Your task to perform on an android device: change the upload size in google photos Image 0: 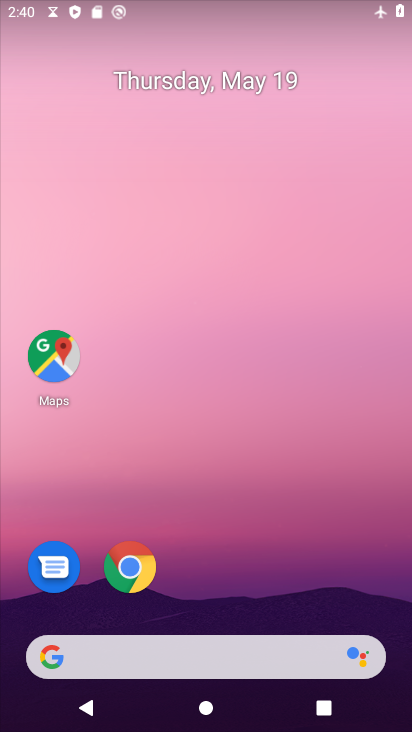
Step 0: drag from (233, 624) to (255, 23)
Your task to perform on an android device: change the upload size in google photos Image 1: 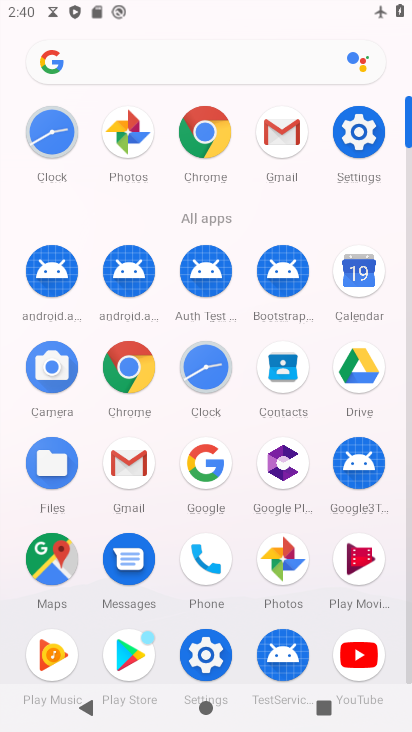
Step 1: click (285, 559)
Your task to perform on an android device: change the upload size in google photos Image 2: 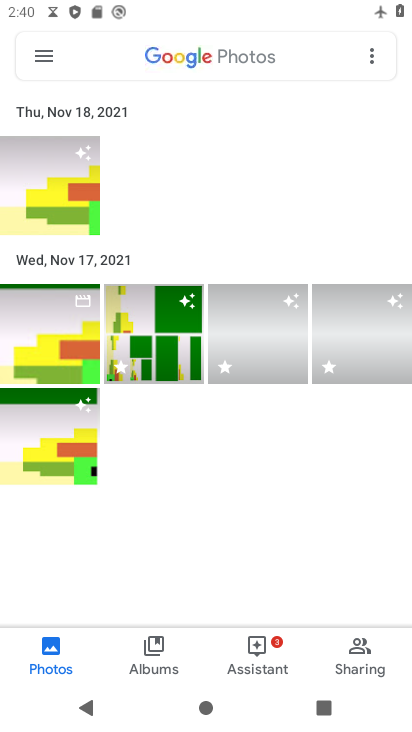
Step 2: click (43, 61)
Your task to perform on an android device: change the upload size in google photos Image 3: 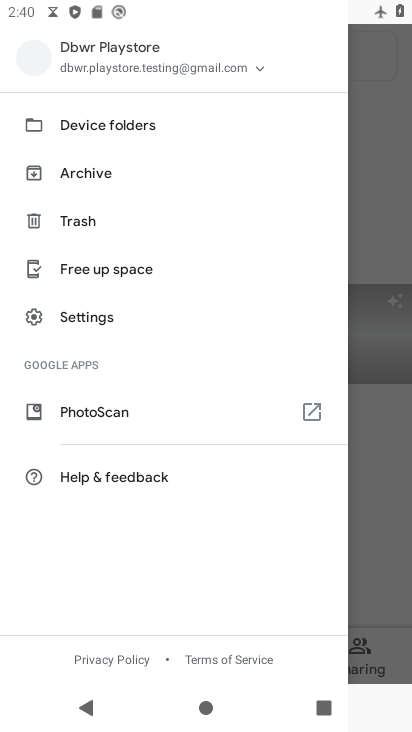
Step 3: click (57, 322)
Your task to perform on an android device: change the upload size in google photos Image 4: 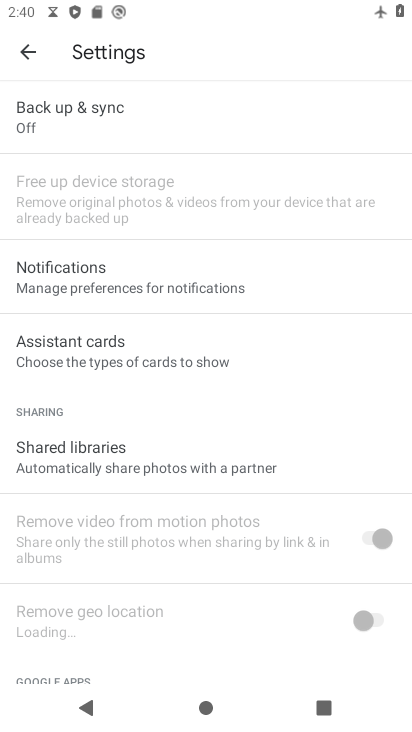
Step 4: click (53, 124)
Your task to perform on an android device: change the upload size in google photos Image 5: 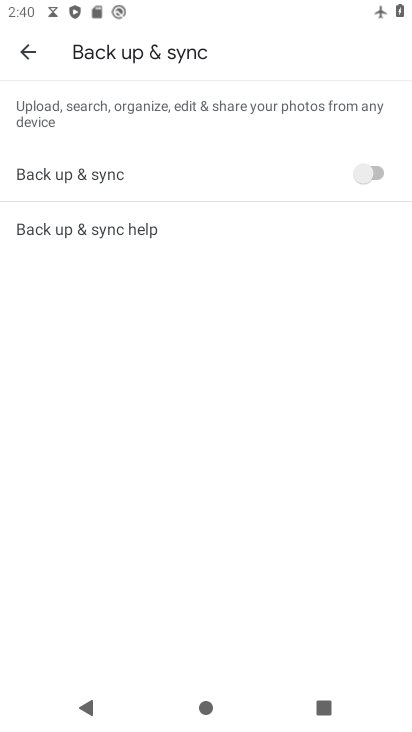
Step 5: click (55, 184)
Your task to perform on an android device: change the upload size in google photos Image 6: 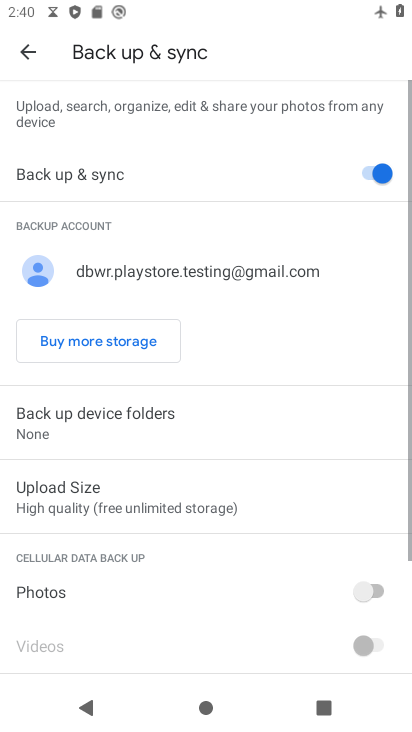
Step 6: click (98, 523)
Your task to perform on an android device: change the upload size in google photos Image 7: 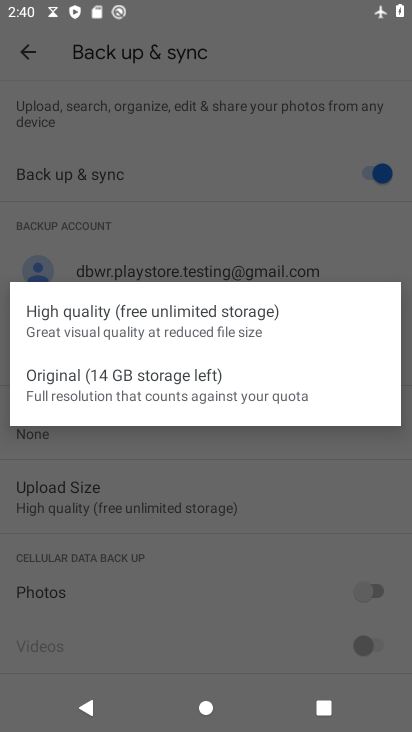
Step 7: click (76, 380)
Your task to perform on an android device: change the upload size in google photos Image 8: 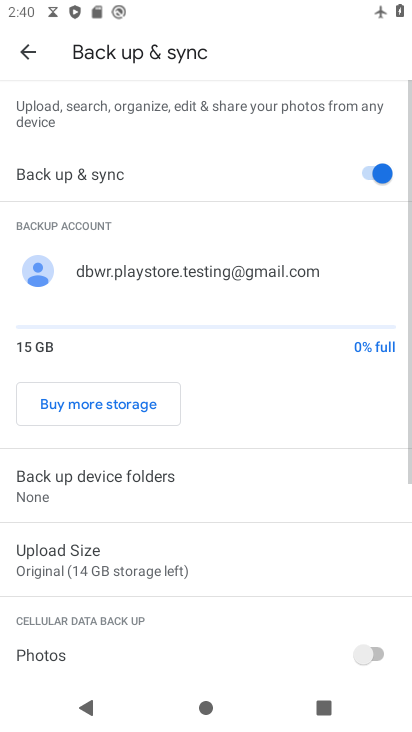
Step 8: task complete